Your task to perform on an android device: turn off wifi Image 0: 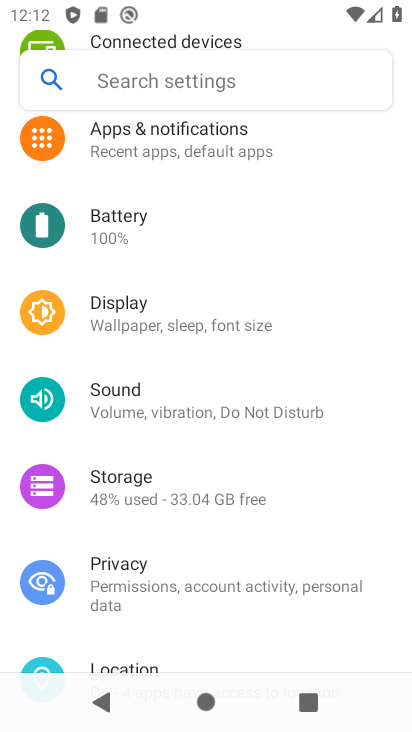
Step 0: drag from (197, 19) to (141, 600)
Your task to perform on an android device: turn off wifi Image 1: 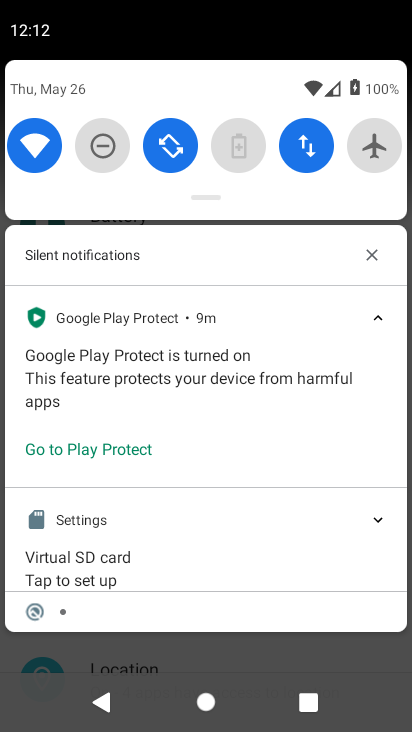
Step 1: click (44, 145)
Your task to perform on an android device: turn off wifi Image 2: 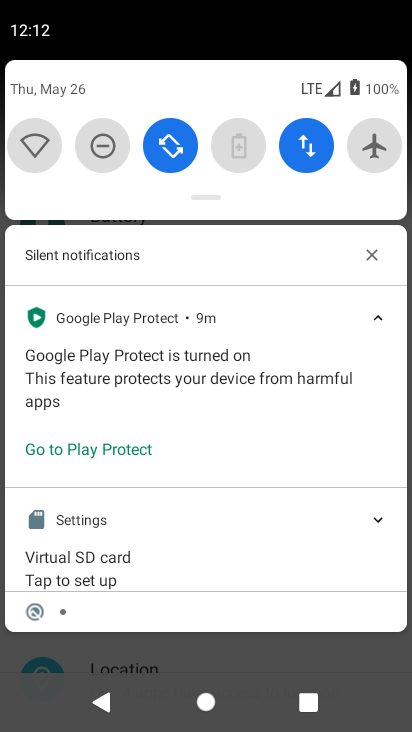
Step 2: task complete